Your task to perform on an android device: turn vacation reply on in the gmail app Image 0: 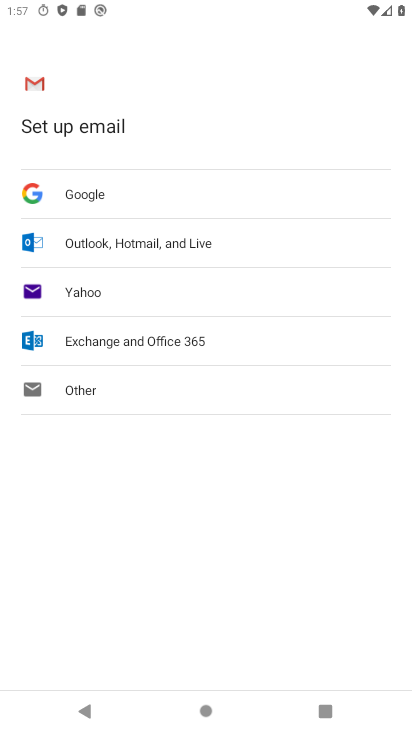
Step 0: press home button
Your task to perform on an android device: turn vacation reply on in the gmail app Image 1: 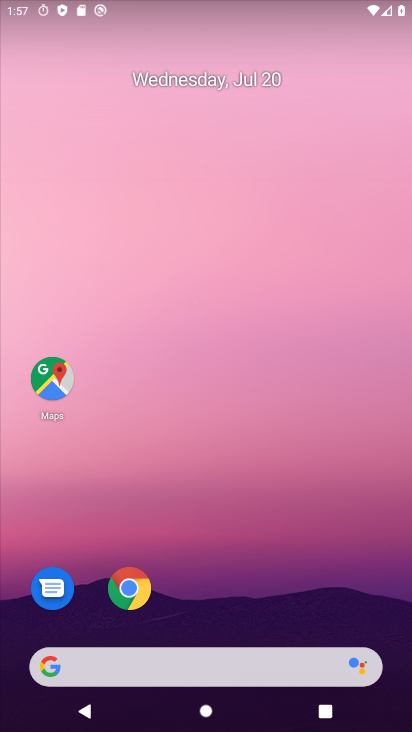
Step 1: drag from (309, 429) to (352, 17)
Your task to perform on an android device: turn vacation reply on in the gmail app Image 2: 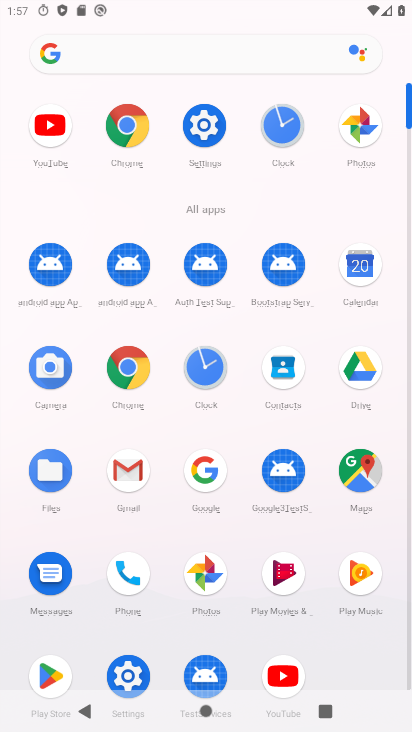
Step 2: click (131, 481)
Your task to perform on an android device: turn vacation reply on in the gmail app Image 3: 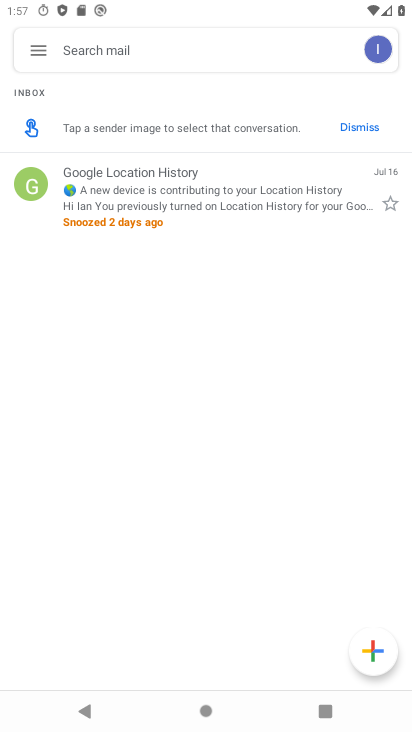
Step 3: click (30, 48)
Your task to perform on an android device: turn vacation reply on in the gmail app Image 4: 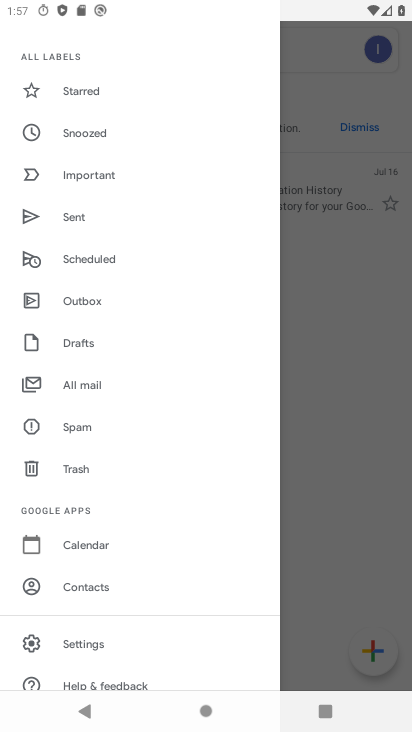
Step 4: click (118, 642)
Your task to perform on an android device: turn vacation reply on in the gmail app Image 5: 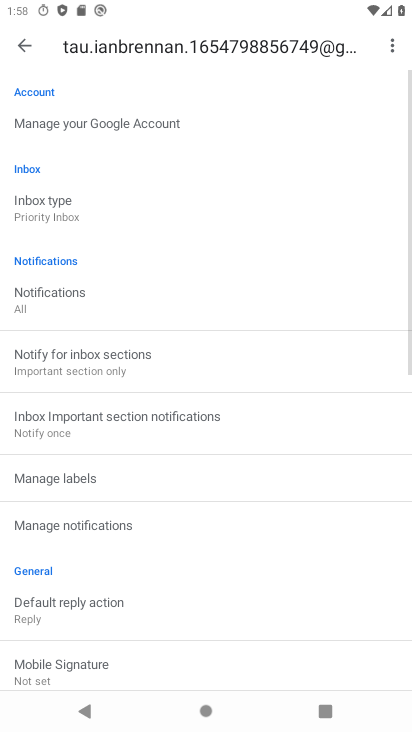
Step 5: drag from (120, 314) to (138, 121)
Your task to perform on an android device: turn vacation reply on in the gmail app Image 6: 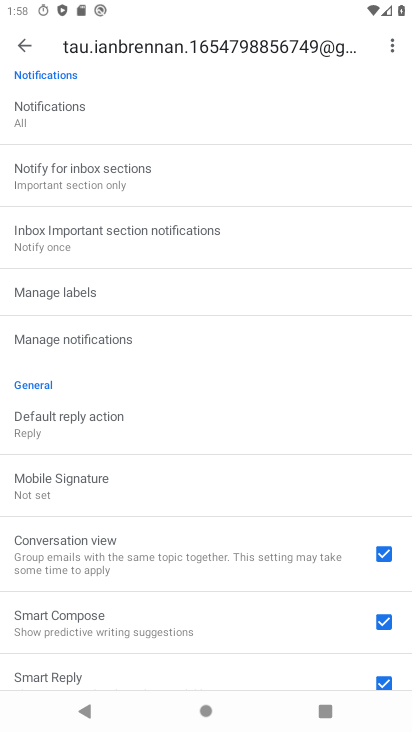
Step 6: drag from (144, 626) to (181, 374)
Your task to perform on an android device: turn vacation reply on in the gmail app Image 7: 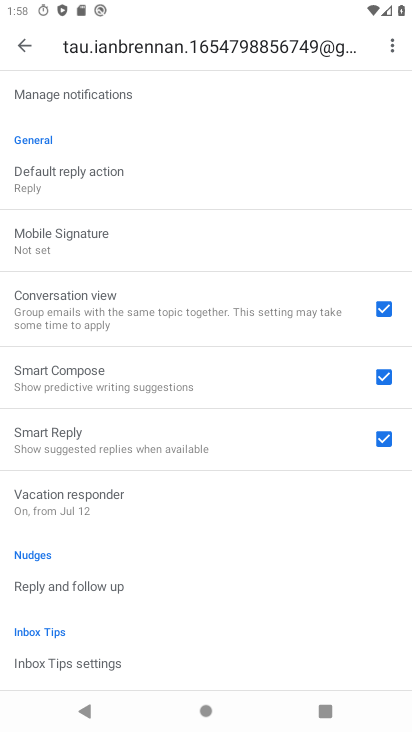
Step 7: click (143, 508)
Your task to perform on an android device: turn vacation reply on in the gmail app Image 8: 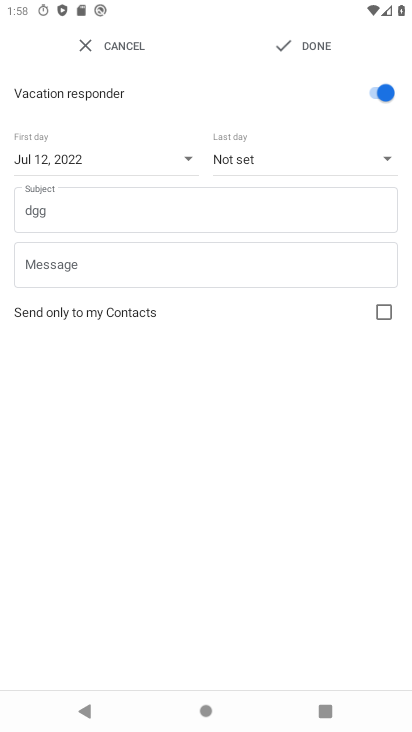
Step 8: click (319, 43)
Your task to perform on an android device: turn vacation reply on in the gmail app Image 9: 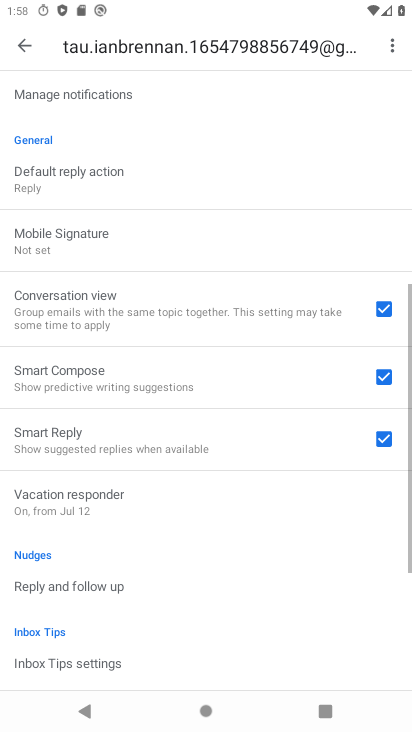
Step 9: task complete